Your task to perform on an android device: install app "Lyft - Rideshare, Bikes, Scooters & Transit" Image 0: 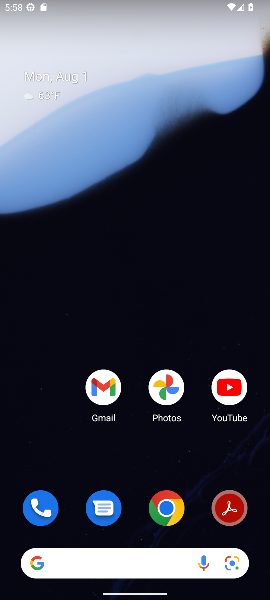
Step 0: drag from (147, 549) to (64, 23)
Your task to perform on an android device: install app "Lyft - Rideshare, Bikes, Scooters & Transit" Image 1: 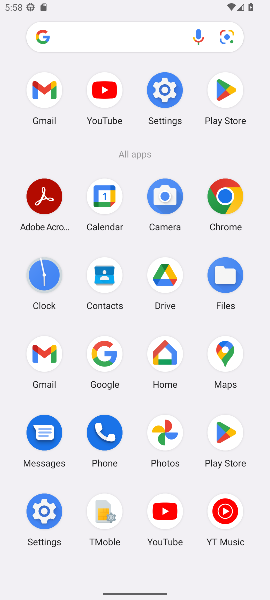
Step 1: click (213, 436)
Your task to perform on an android device: install app "Lyft - Rideshare, Bikes, Scooters & Transit" Image 2: 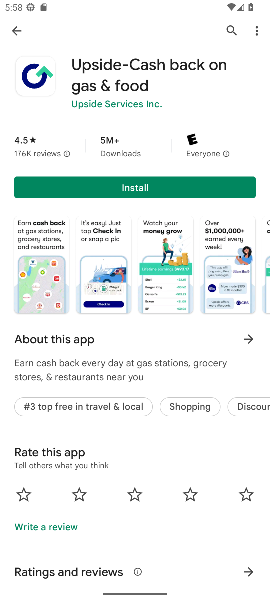
Step 2: click (21, 22)
Your task to perform on an android device: install app "Lyft - Rideshare, Bikes, Scooters & Transit" Image 3: 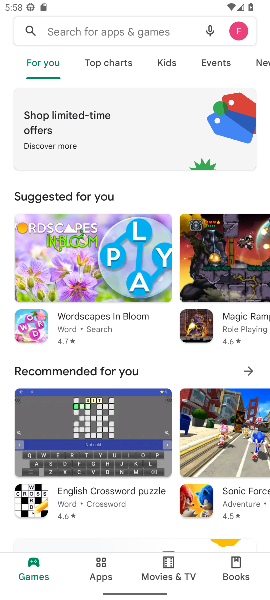
Step 3: click (102, 36)
Your task to perform on an android device: install app "Lyft - Rideshare, Bikes, Scooters & Transit" Image 4: 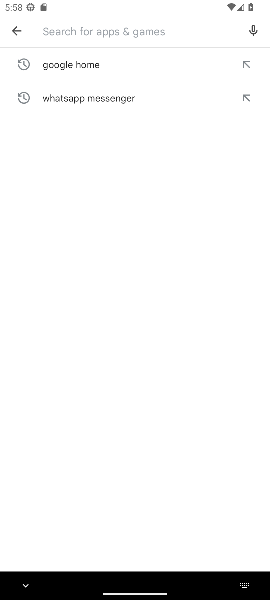
Step 4: type "Lyft"
Your task to perform on an android device: install app "Lyft - Rideshare, Bikes, Scooters & Transit" Image 5: 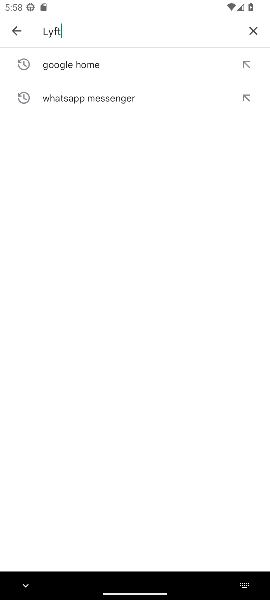
Step 5: type ""
Your task to perform on an android device: install app "Lyft - Rideshare, Bikes, Scooters & Transit" Image 6: 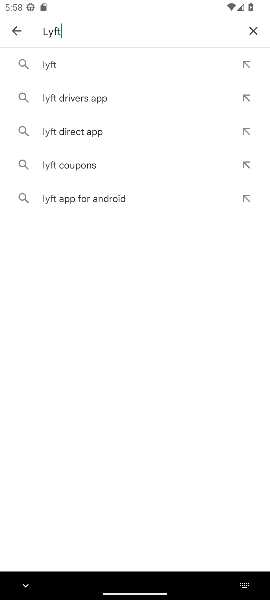
Step 6: click (46, 58)
Your task to perform on an android device: install app "Lyft - Rideshare, Bikes, Scooters & Transit" Image 7: 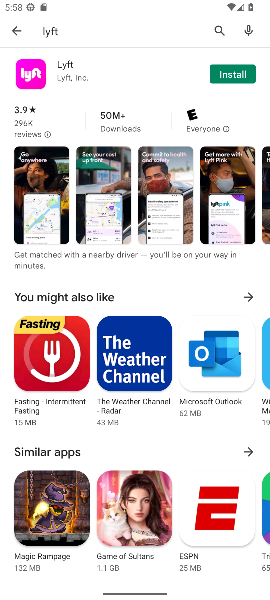
Step 7: click (235, 70)
Your task to perform on an android device: install app "Lyft - Rideshare, Bikes, Scooters & Transit" Image 8: 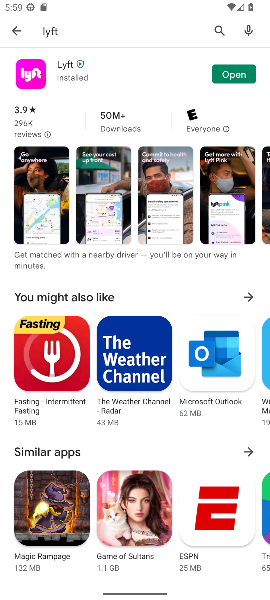
Step 8: task complete